Your task to perform on an android device: Open accessibility settings Image 0: 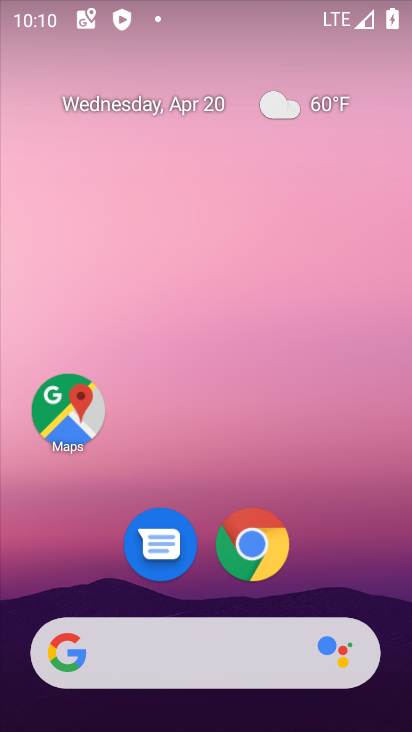
Step 0: click (245, 545)
Your task to perform on an android device: Open accessibility settings Image 1: 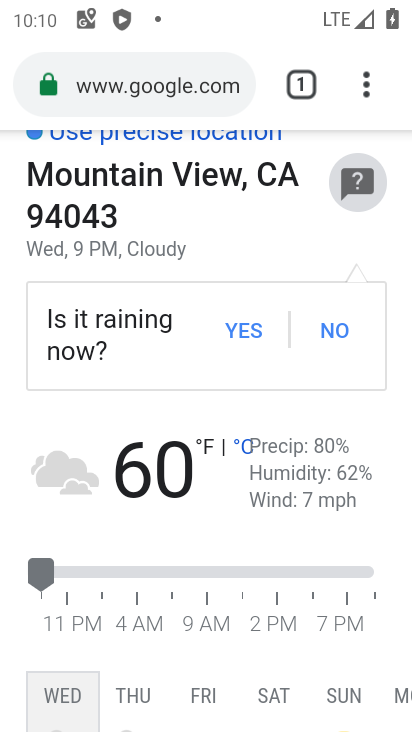
Step 1: click (372, 108)
Your task to perform on an android device: Open accessibility settings Image 2: 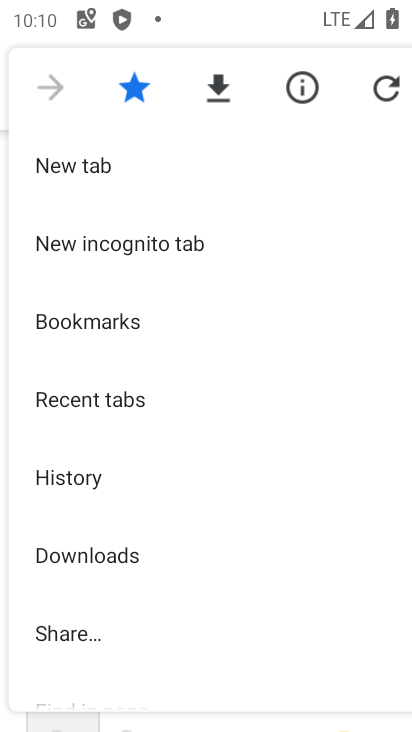
Step 2: drag from (229, 664) to (231, 287)
Your task to perform on an android device: Open accessibility settings Image 3: 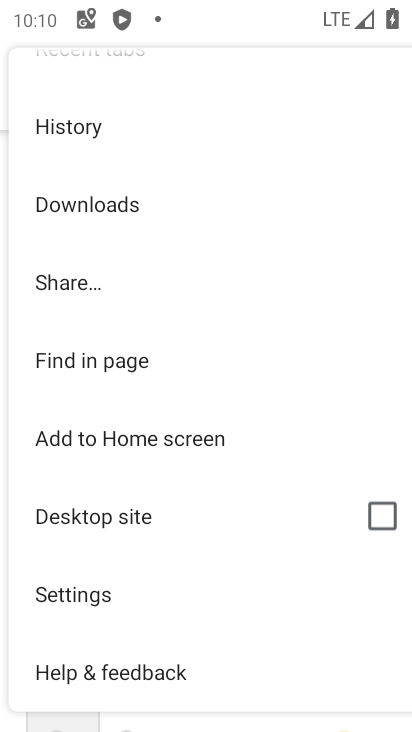
Step 3: click (182, 612)
Your task to perform on an android device: Open accessibility settings Image 4: 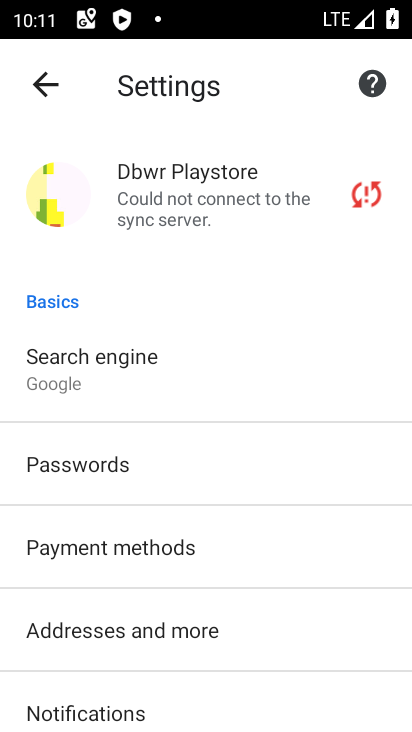
Step 4: drag from (226, 701) to (213, 358)
Your task to perform on an android device: Open accessibility settings Image 5: 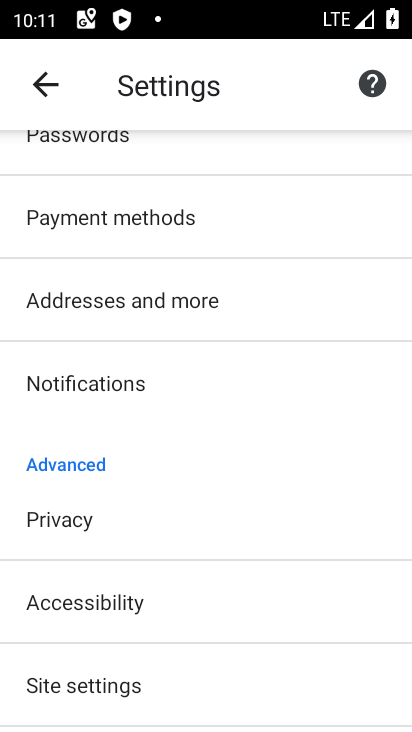
Step 5: click (237, 638)
Your task to perform on an android device: Open accessibility settings Image 6: 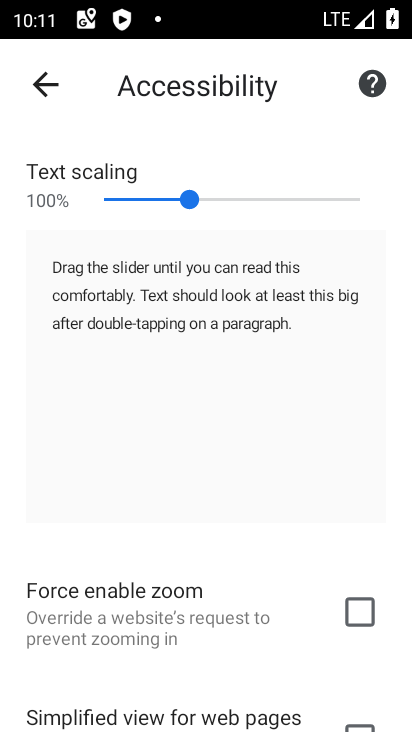
Step 6: task complete